Your task to perform on an android device: Show me popular videos on Youtube Image 0: 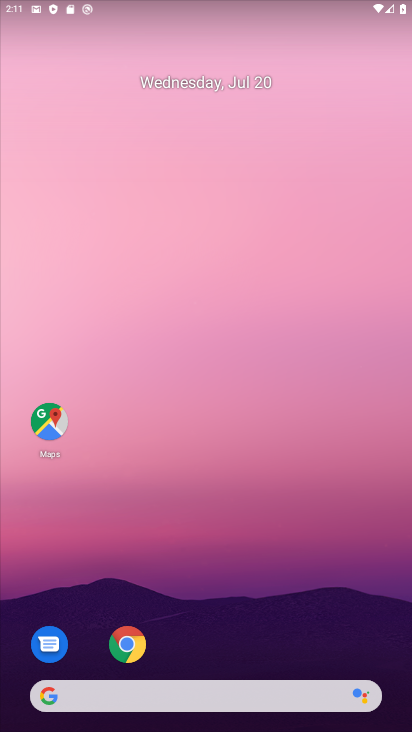
Step 0: press home button
Your task to perform on an android device: Show me popular videos on Youtube Image 1: 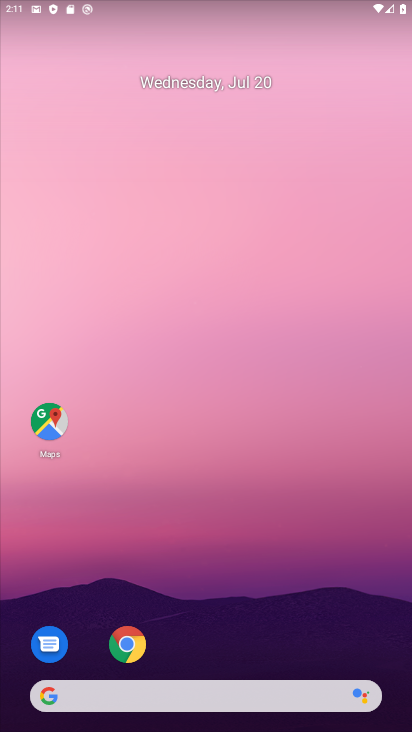
Step 1: drag from (296, 660) to (224, 55)
Your task to perform on an android device: Show me popular videos on Youtube Image 2: 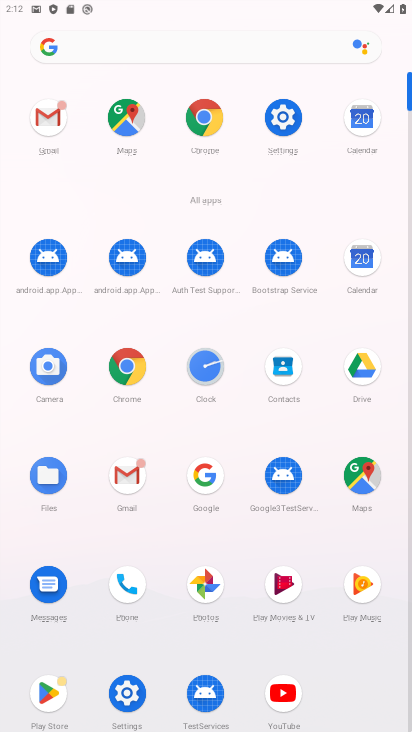
Step 2: click (287, 692)
Your task to perform on an android device: Show me popular videos on Youtube Image 3: 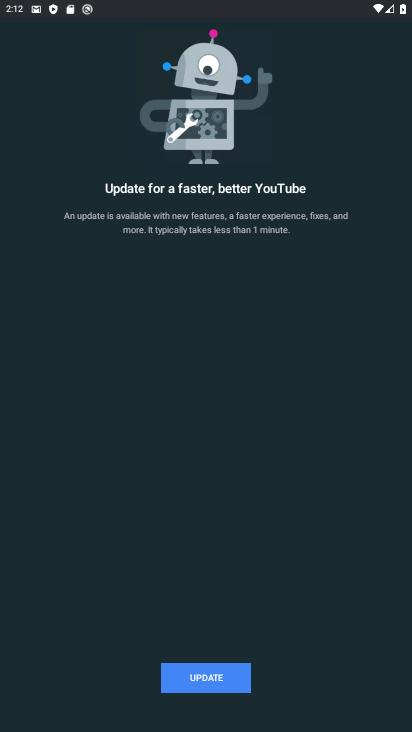
Step 3: click (176, 675)
Your task to perform on an android device: Show me popular videos on Youtube Image 4: 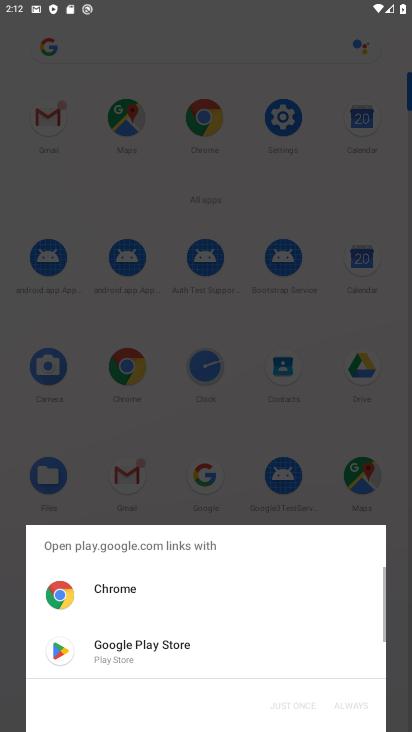
Step 4: click (183, 639)
Your task to perform on an android device: Show me popular videos on Youtube Image 5: 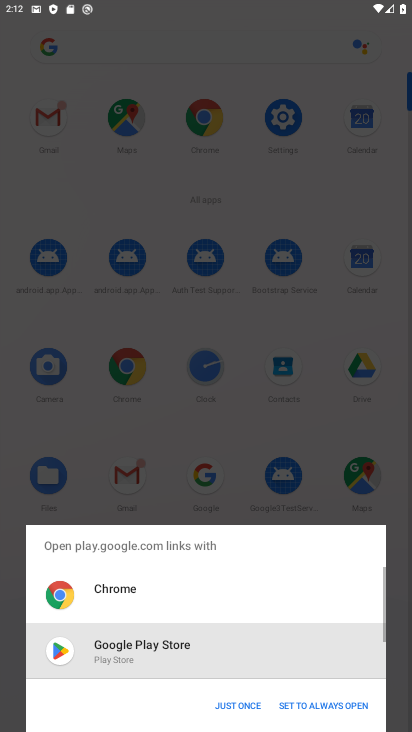
Step 5: click (231, 712)
Your task to perform on an android device: Show me popular videos on Youtube Image 6: 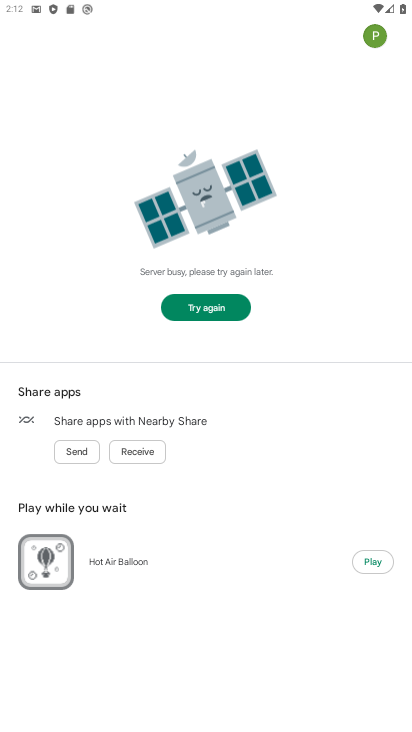
Step 6: task complete